Your task to perform on an android device: turn notification dots off Image 0: 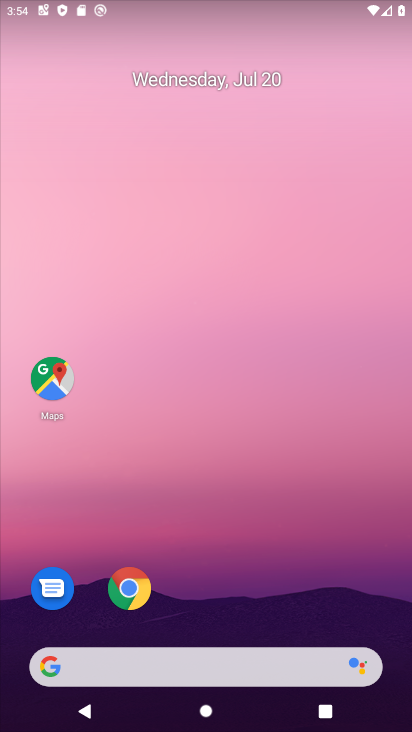
Step 0: drag from (291, 544) to (281, 30)
Your task to perform on an android device: turn notification dots off Image 1: 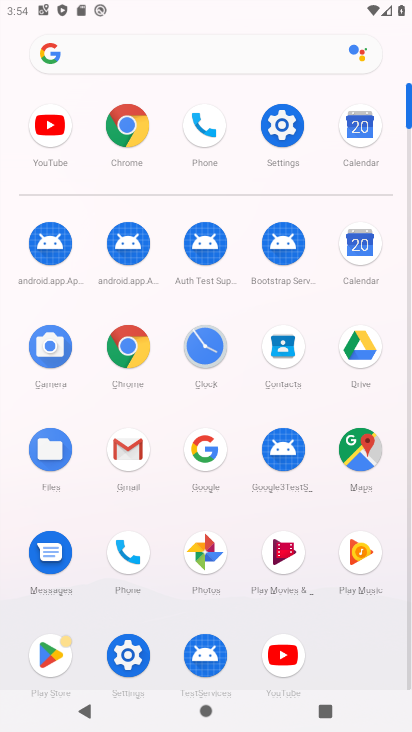
Step 1: click (262, 126)
Your task to perform on an android device: turn notification dots off Image 2: 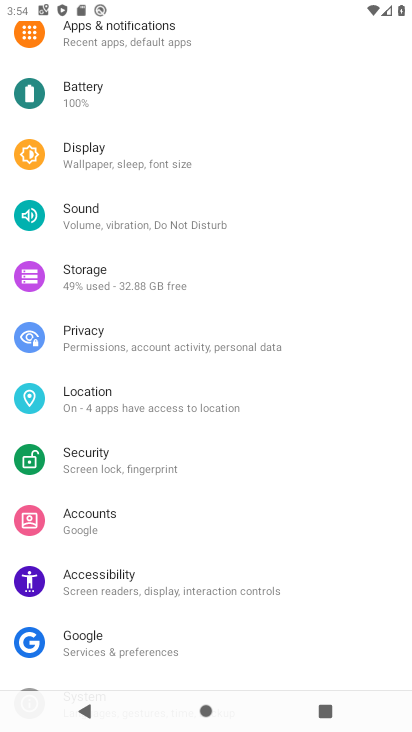
Step 2: click (150, 37)
Your task to perform on an android device: turn notification dots off Image 3: 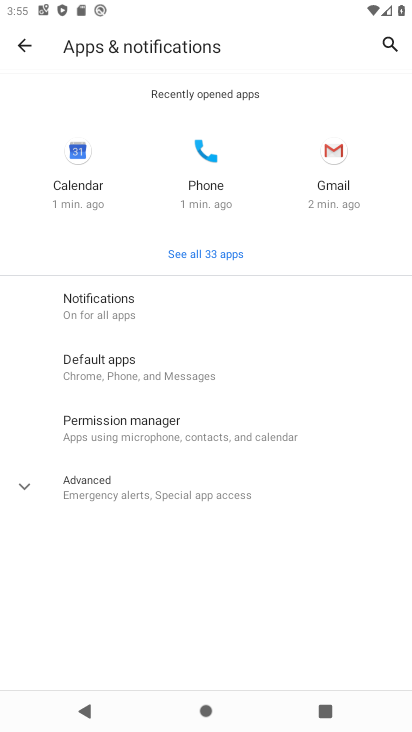
Step 3: click (132, 301)
Your task to perform on an android device: turn notification dots off Image 4: 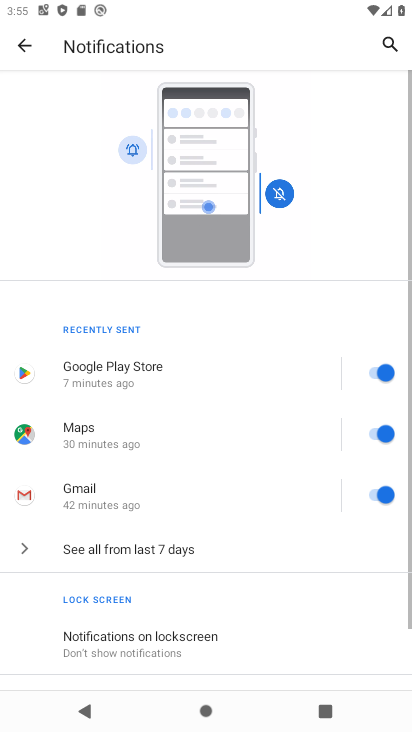
Step 4: drag from (182, 582) to (237, 148)
Your task to perform on an android device: turn notification dots off Image 5: 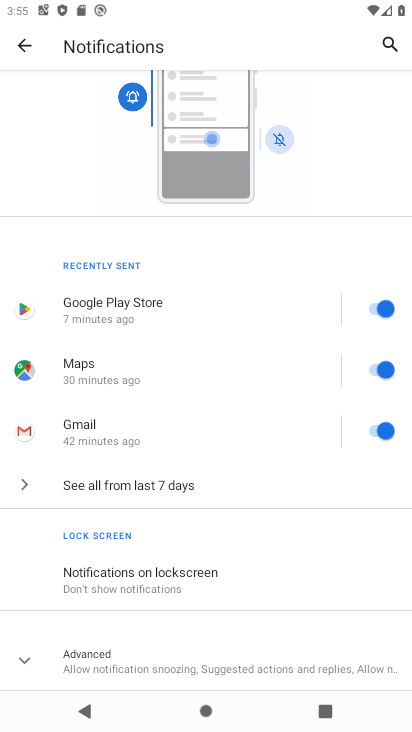
Step 5: click (211, 660)
Your task to perform on an android device: turn notification dots off Image 6: 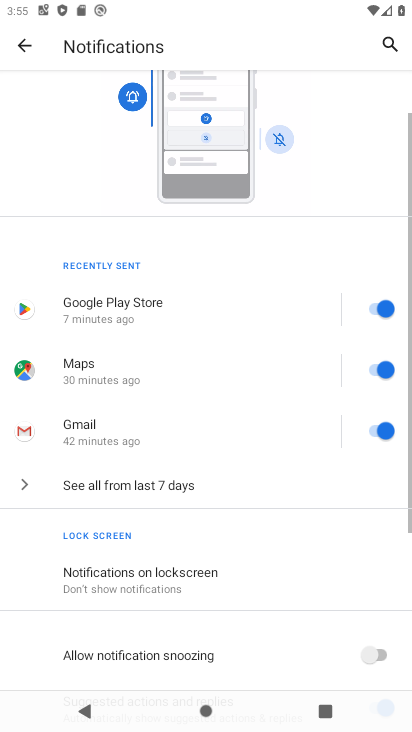
Step 6: drag from (214, 640) to (258, 161)
Your task to perform on an android device: turn notification dots off Image 7: 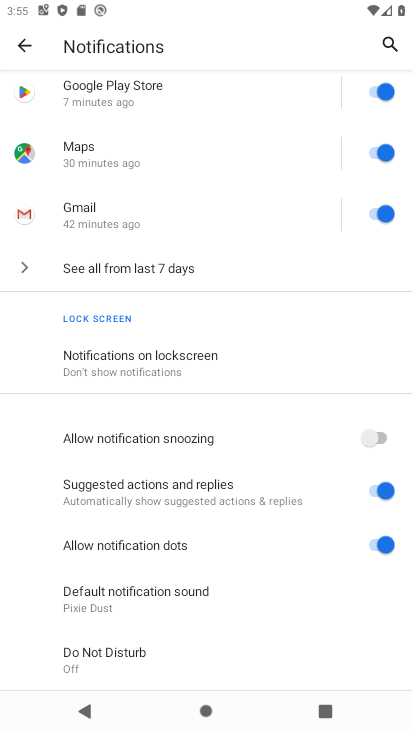
Step 7: click (379, 541)
Your task to perform on an android device: turn notification dots off Image 8: 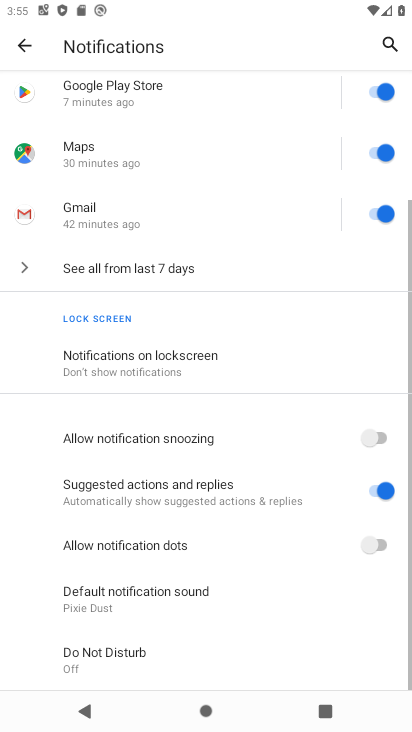
Step 8: task complete